Your task to perform on an android device: Open calendar and show me the second week of next month Image 0: 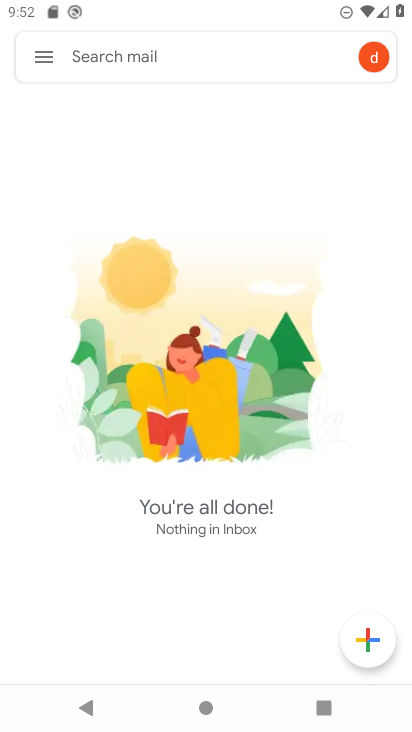
Step 0: press home button
Your task to perform on an android device: Open calendar and show me the second week of next month Image 1: 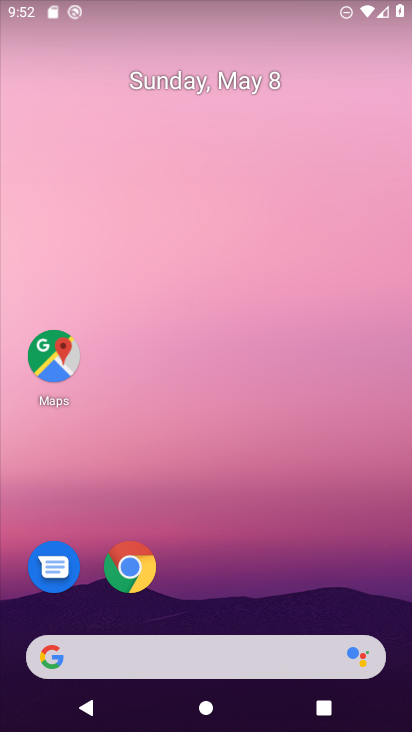
Step 1: drag from (152, 631) to (190, 155)
Your task to perform on an android device: Open calendar and show me the second week of next month Image 2: 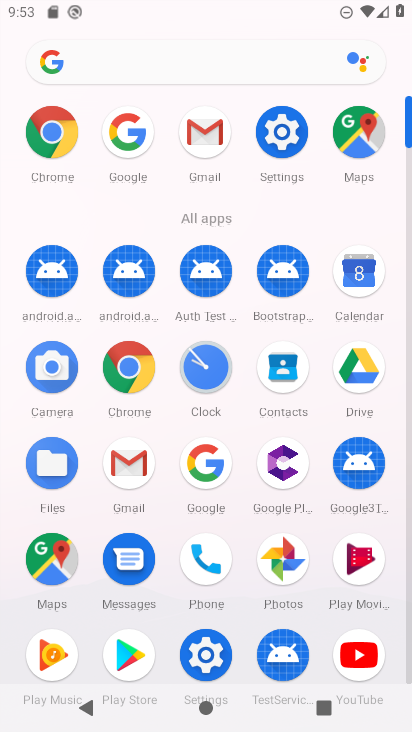
Step 2: click (356, 280)
Your task to perform on an android device: Open calendar and show me the second week of next month Image 3: 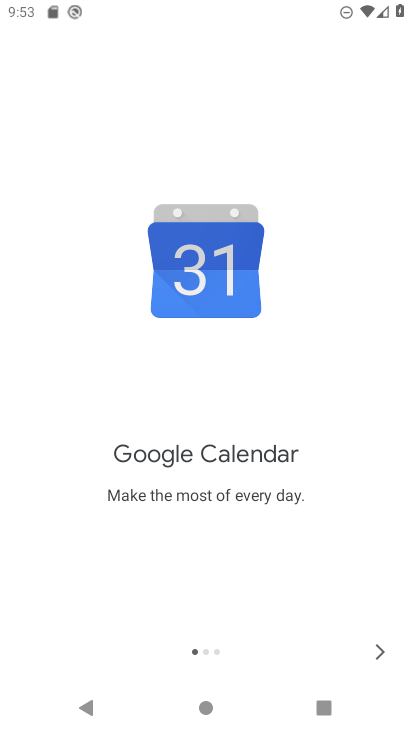
Step 3: click (376, 657)
Your task to perform on an android device: Open calendar and show me the second week of next month Image 4: 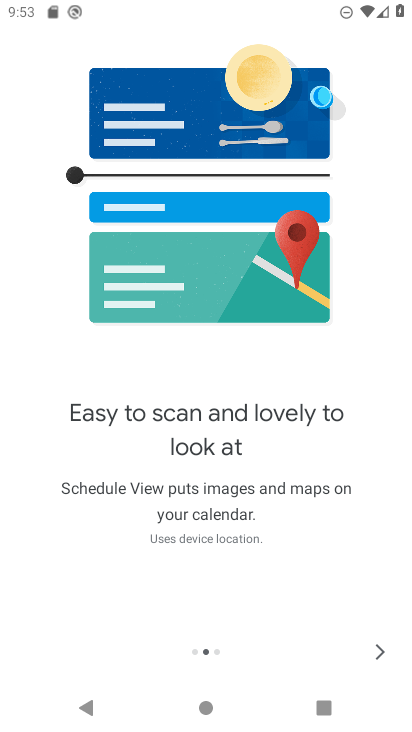
Step 4: click (376, 657)
Your task to perform on an android device: Open calendar and show me the second week of next month Image 5: 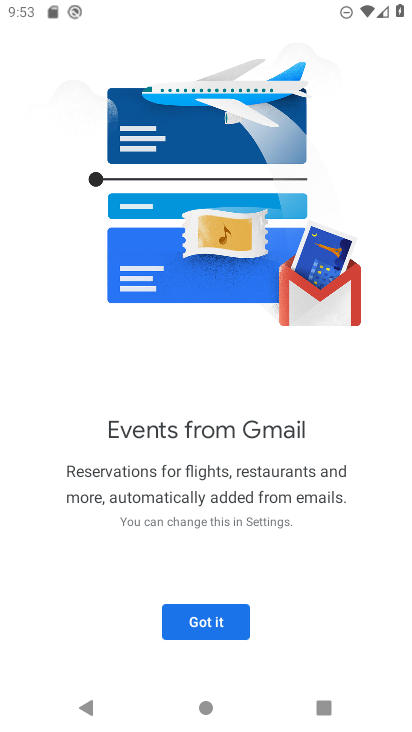
Step 5: click (233, 611)
Your task to perform on an android device: Open calendar and show me the second week of next month Image 6: 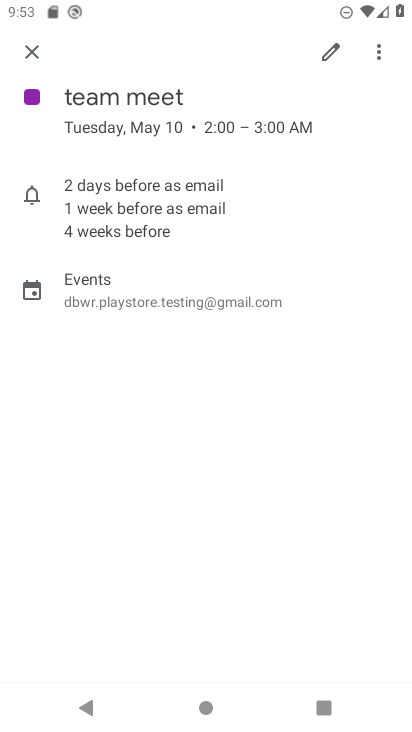
Step 6: click (30, 48)
Your task to perform on an android device: Open calendar and show me the second week of next month Image 7: 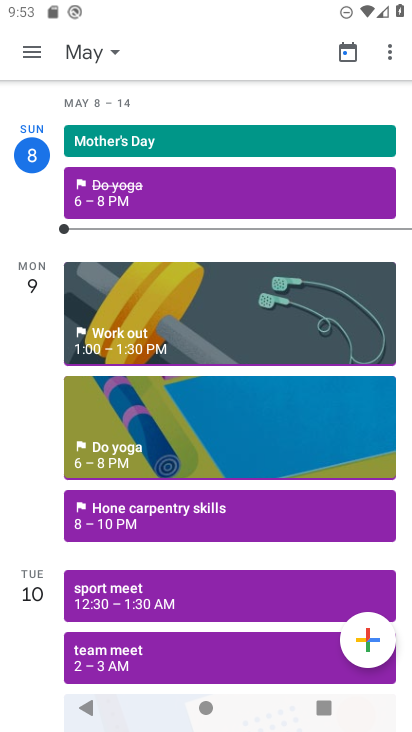
Step 7: click (96, 49)
Your task to perform on an android device: Open calendar and show me the second week of next month Image 8: 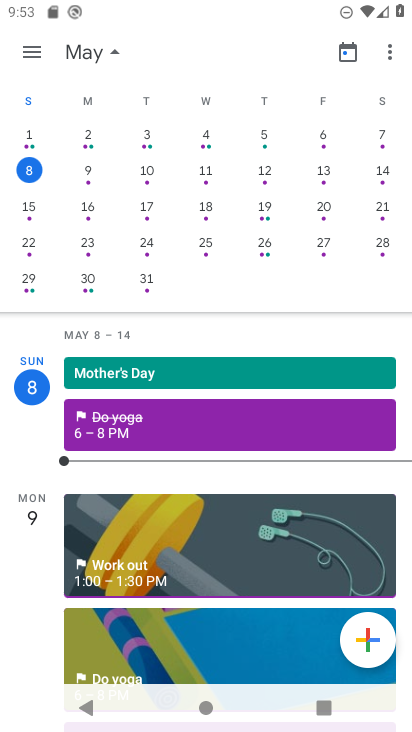
Step 8: drag from (373, 226) to (0, 272)
Your task to perform on an android device: Open calendar and show me the second week of next month Image 9: 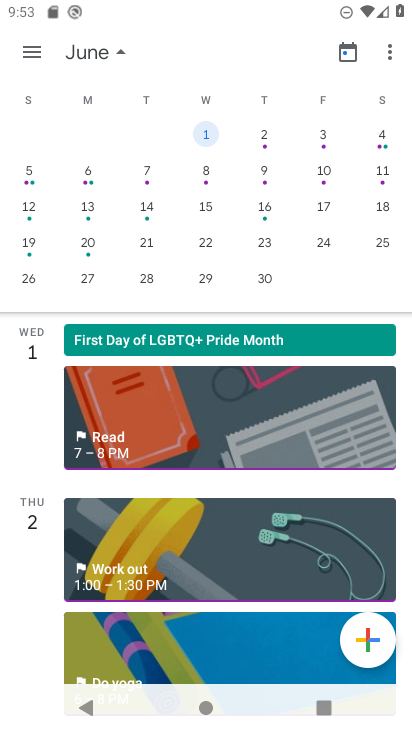
Step 9: click (33, 173)
Your task to perform on an android device: Open calendar and show me the second week of next month Image 10: 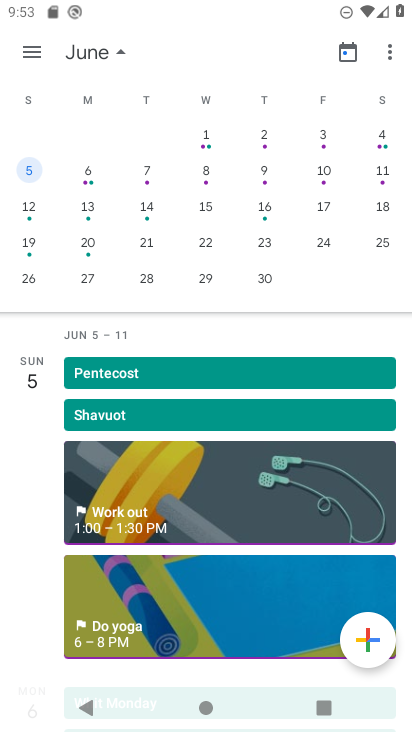
Step 10: task complete